Your task to perform on an android device: toggle javascript in the chrome app Image 0: 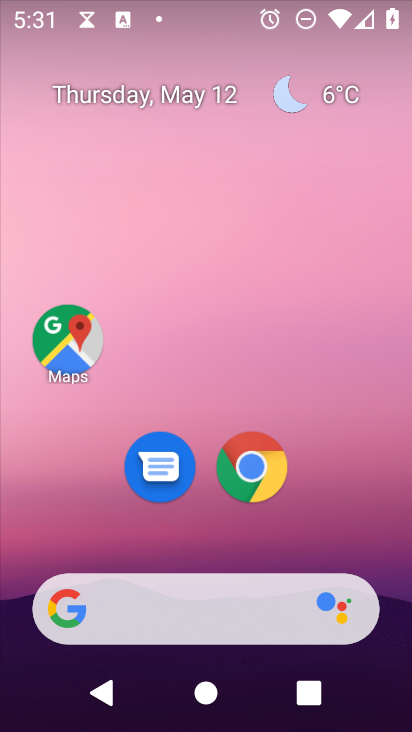
Step 0: drag from (233, 595) to (221, 9)
Your task to perform on an android device: toggle javascript in the chrome app Image 1: 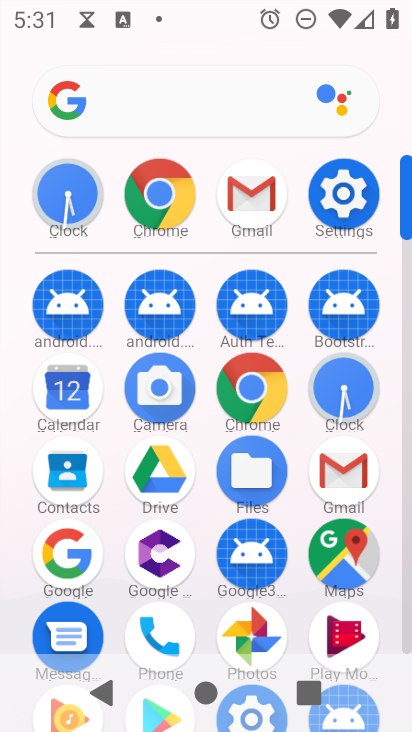
Step 1: click (252, 392)
Your task to perform on an android device: toggle javascript in the chrome app Image 2: 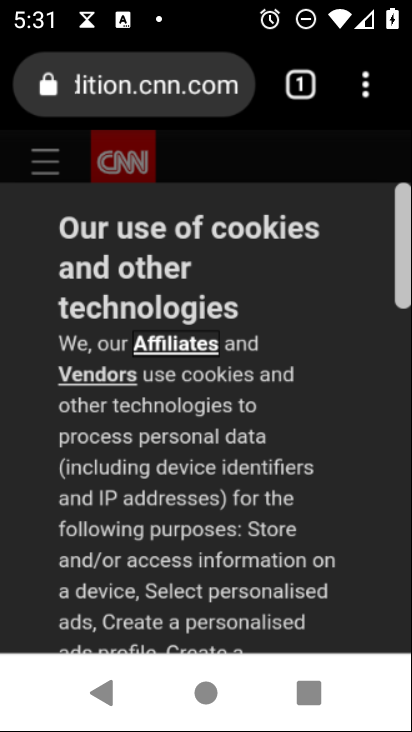
Step 2: drag from (365, 86) to (268, 518)
Your task to perform on an android device: toggle javascript in the chrome app Image 3: 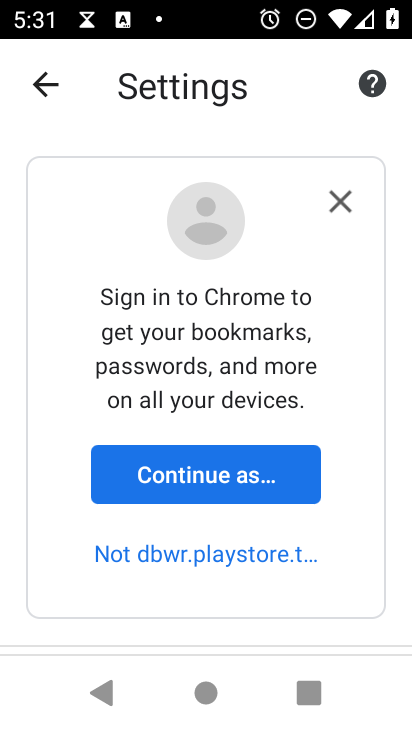
Step 3: drag from (284, 586) to (293, 143)
Your task to perform on an android device: toggle javascript in the chrome app Image 4: 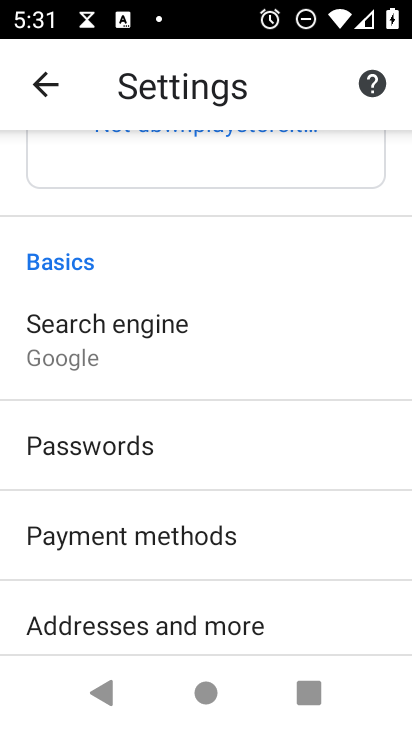
Step 4: drag from (259, 629) to (229, 269)
Your task to perform on an android device: toggle javascript in the chrome app Image 5: 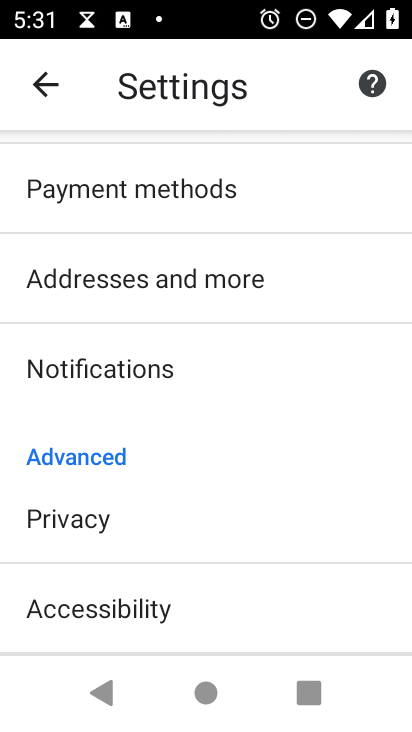
Step 5: drag from (255, 620) to (253, 367)
Your task to perform on an android device: toggle javascript in the chrome app Image 6: 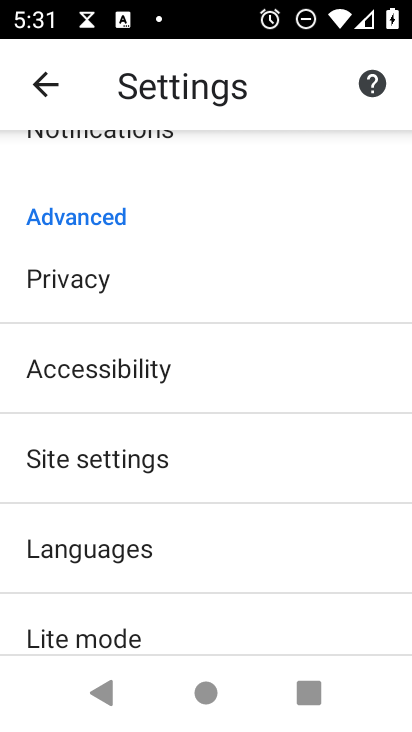
Step 6: drag from (226, 616) to (239, 454)
Your task to perform on an android device: toggle javascript in the chrome app Image 7: 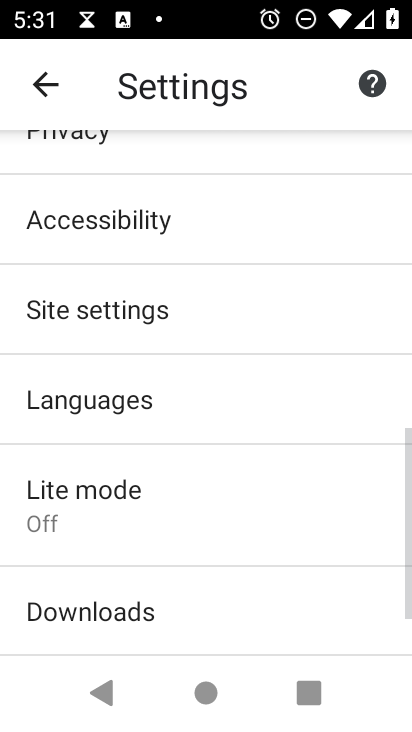
Step 7: click (200, 348)
Your task to perform on an android device: toggle javascript in the chrome app Image 8: 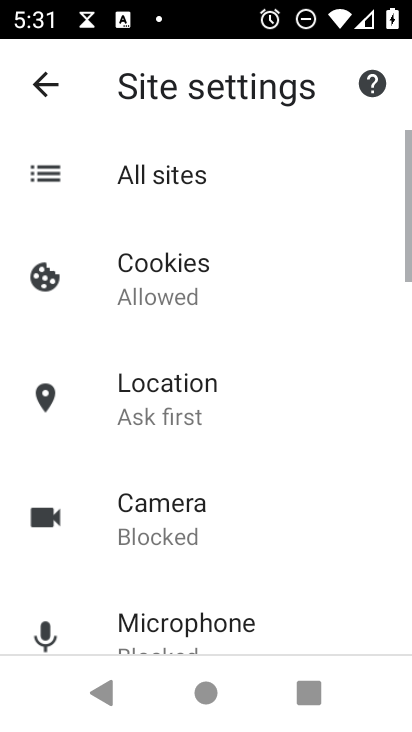
Step 8: drag from (265, 618) to (235, 157)
Your task to perform on an android device: toggle javascript in the chrome app Image 9: 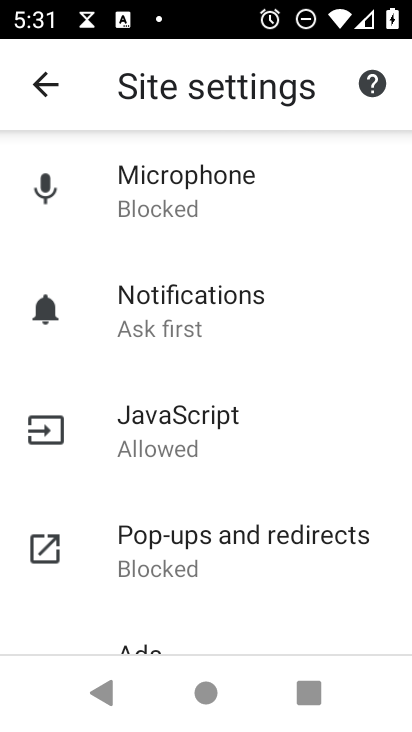
Step 9: click (215, 408)
Your task to perform on an android device: toggle javascript in the chrome app Image 10: 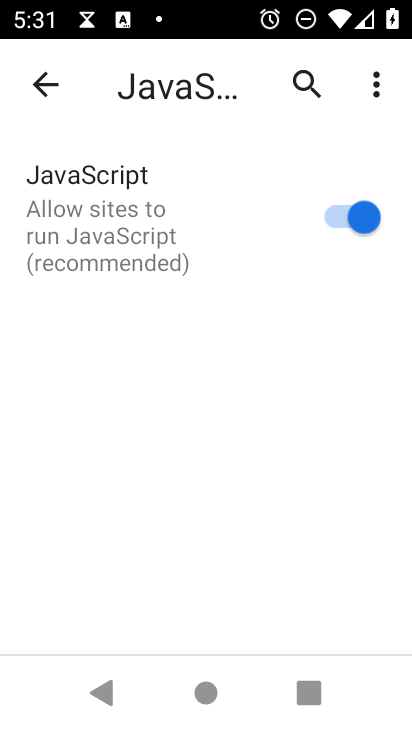
Step 10: click (336, 211)
Your task to perform on an android device: toggle javascript in the chrome app Image 11: 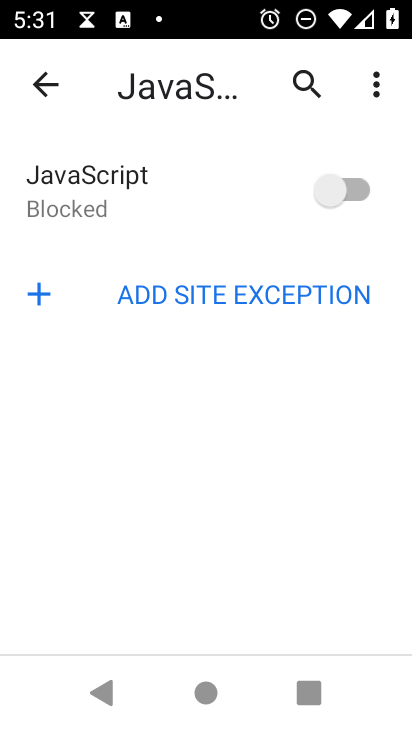
Step 11: task complete